Your task to perform on an android device: What's the weather going to be this weekend? Image 0: 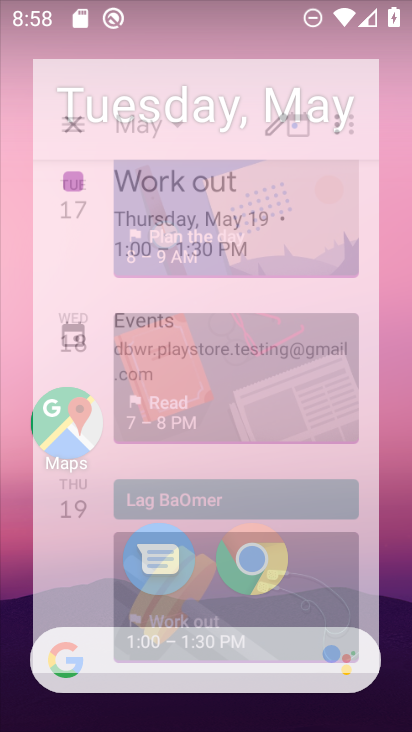
Step 0: drag from (181, 526) to (328, 70)
Your task to perform on an android device: What's the weather going to be this weekend? Image 1: 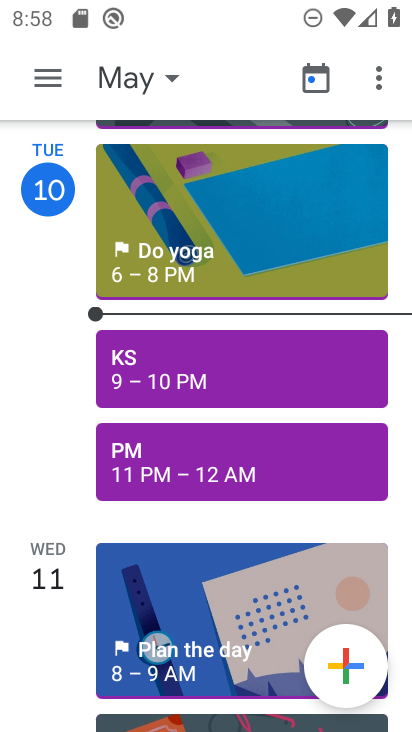
Step 1: press back button
Your task to perform on an android device: What's the weather going to be this weekend? Image 2: 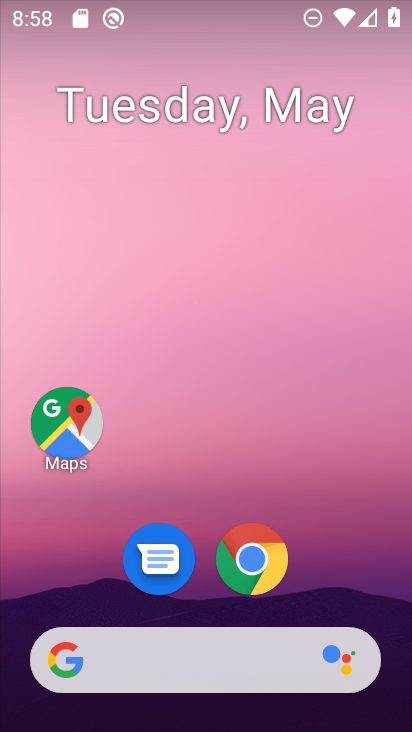
Step 2: click (155, 661)
Your task to perform on an android device: What's the weather going to be this weekend? Image 3: 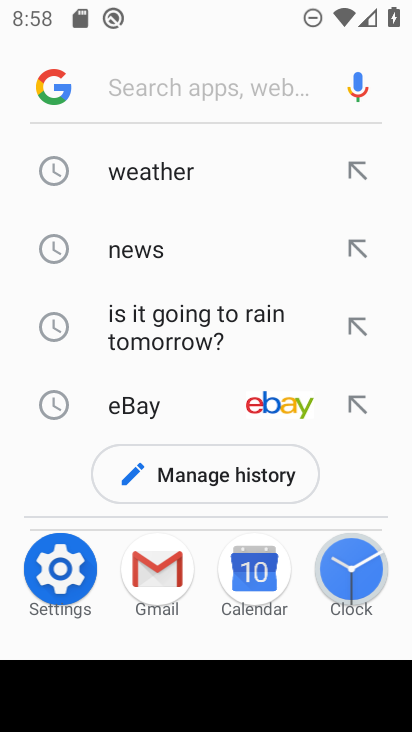
Step 3: click (153, 178)
Your task to perform on an android device: What's the weather going to be this weekend? Image 4: 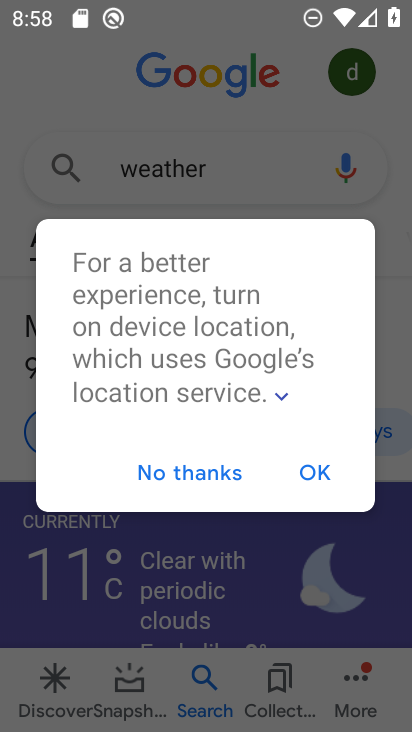
Step 4: click (198, 477)
Your task to perform on an android device: What's the weather going to be this weekend? Image 5: 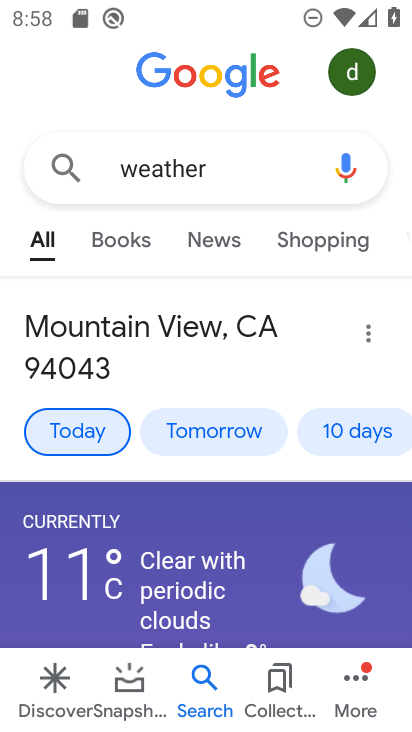
Step 5: click (346, 434)
Your task to perform on an android device: What's the weather going to be this weekend? Image 6: 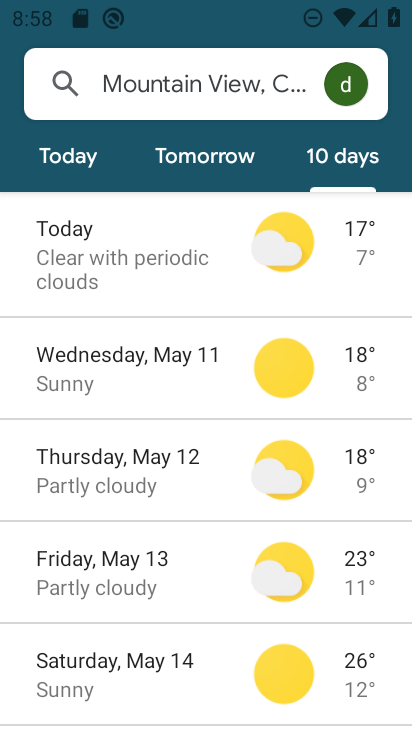
Step 6: task complete